Your task to perform on an android device: uninstall "NewsBreak: Local News & Alerts" Image 0: 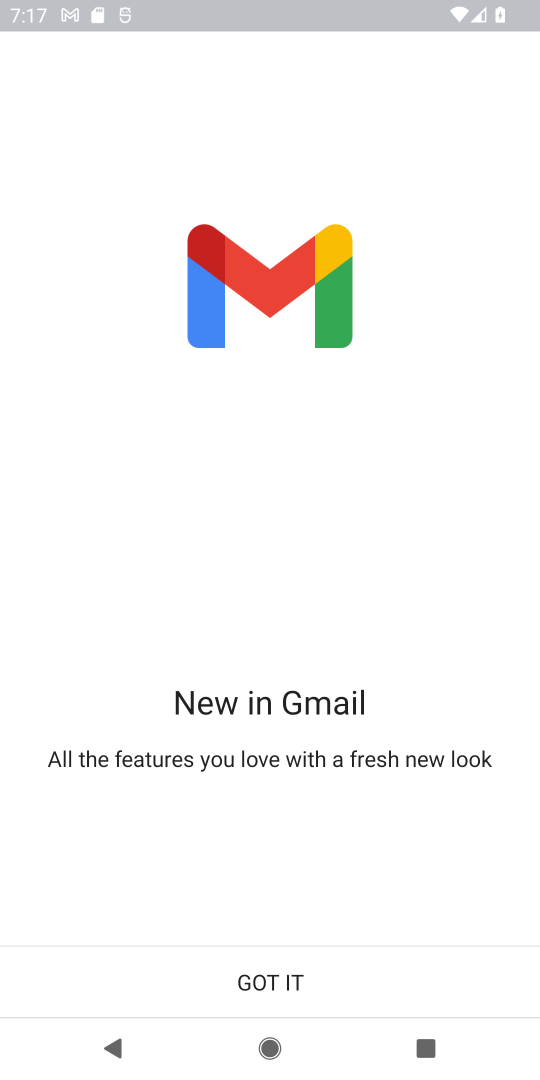
Step 0: press home button
Your task to perform on an android device: uninstall "NewsBreak: Local News & Alerts" Image 1: 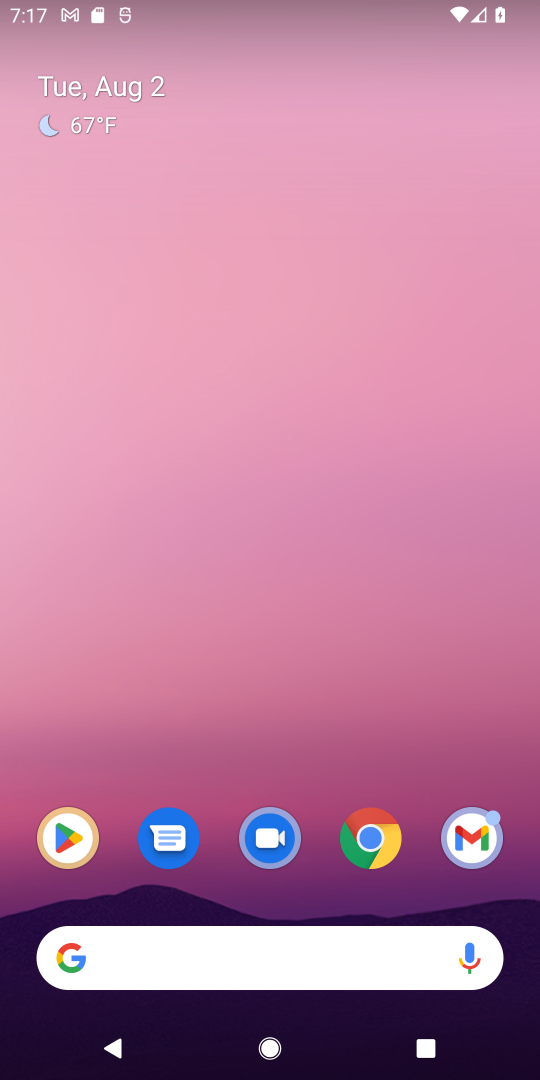
Step 1: click (76, 821)
Your task to perform on an android device: uninstall "NewsBreak: Local News & Alerts" Image 2: 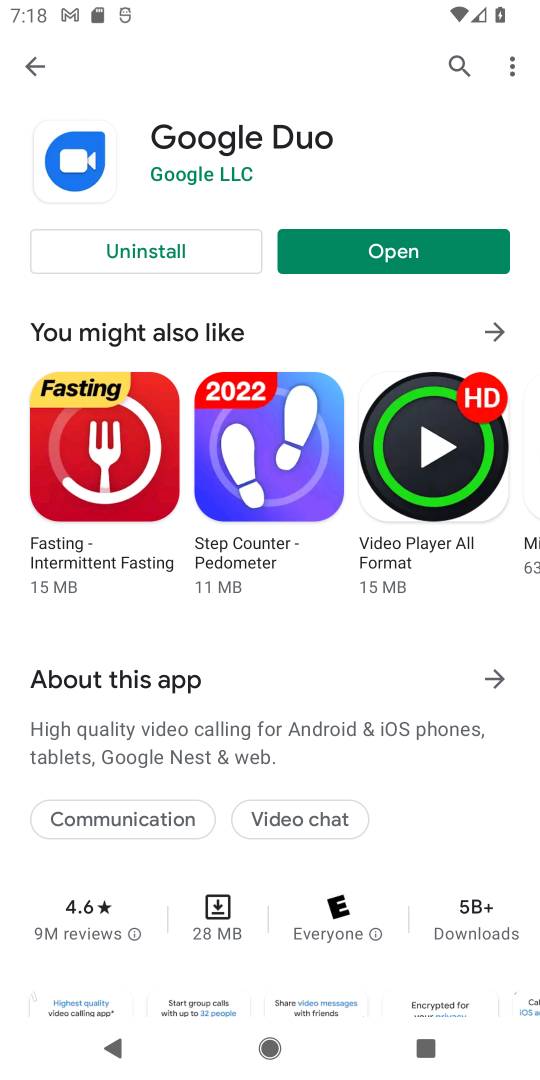
Step 2: click (459, 61)
Your task to perform on an android device: uninstall "NewsBreak: Local News & Alerts" Image 3: 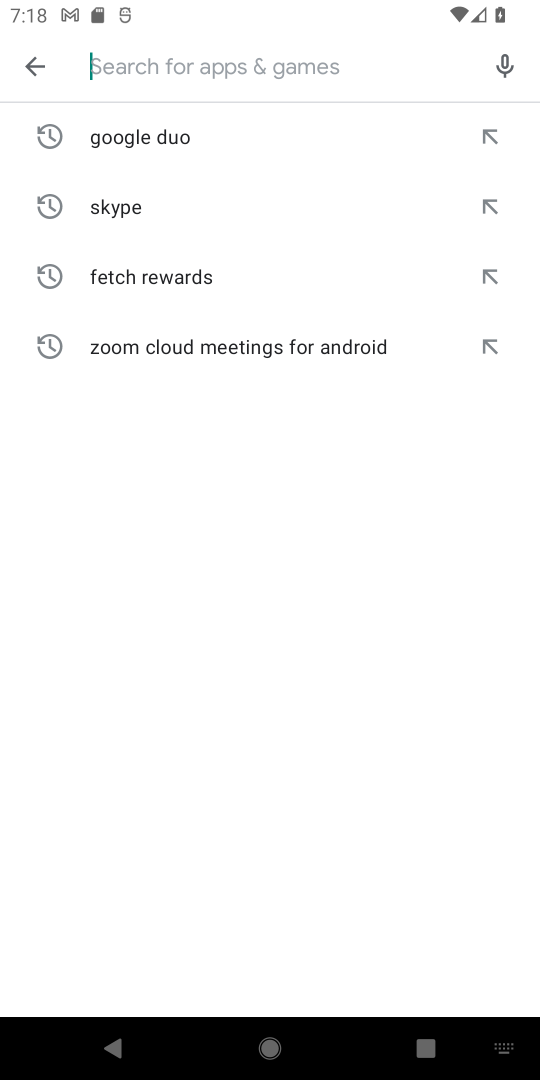
Step 3: type "newsbreaj: local news "
Your task to perform on an android device: uninstall "NewsBreak: Local News & Alerts" Image 4: 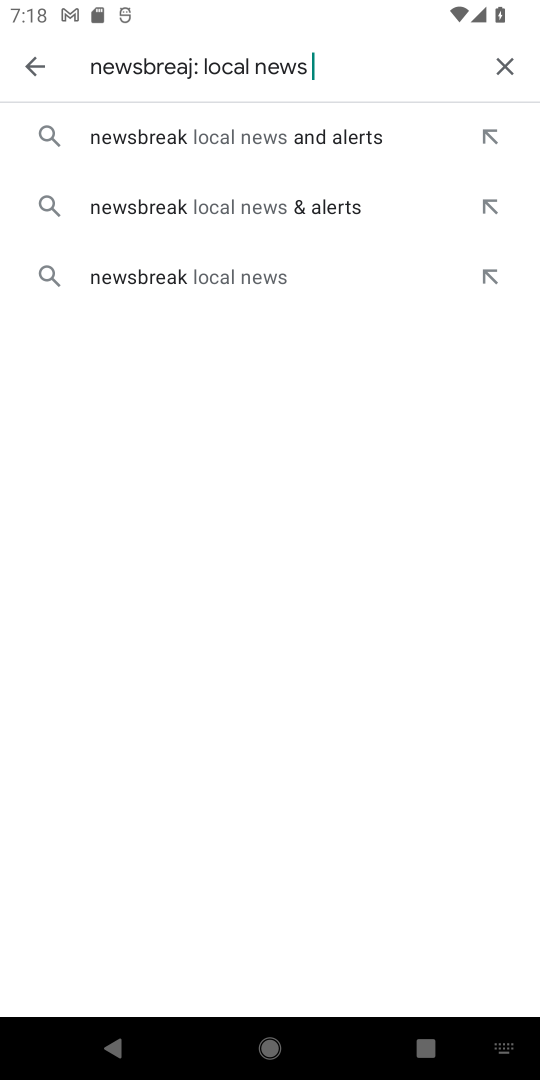
Step 4: click (286, 141)
Your task to perform on an android device: uninstall "NewsBreak: Local News & Alerts" Image 5: 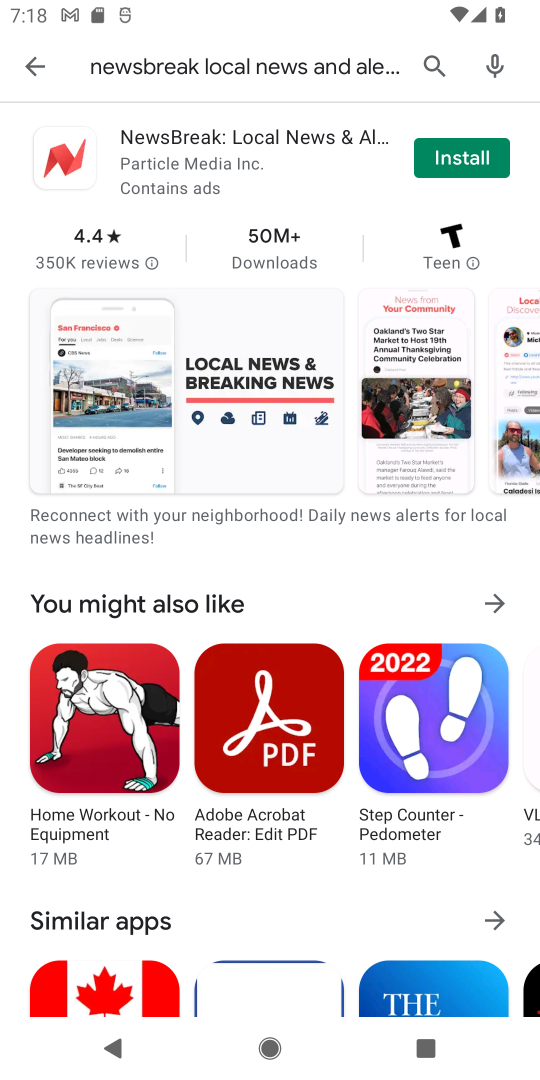
Step 5: click (286, 141)
Your task to perform on an android device: uninstall "NewsBreak: Local News & Alerts" Image 6: 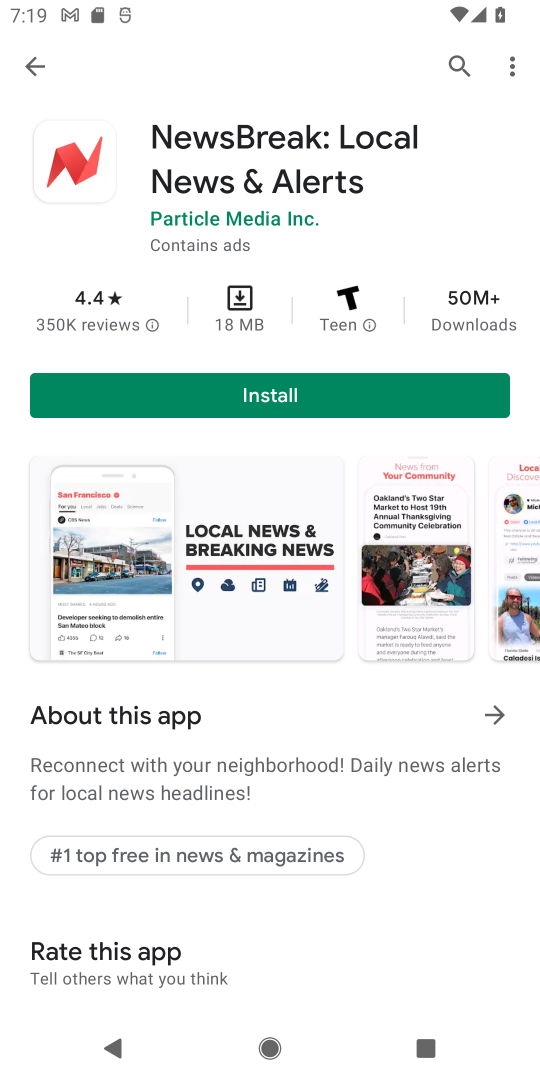
Step 6: task complete